Your task to perform on an android device: Open Amazon Image 0: 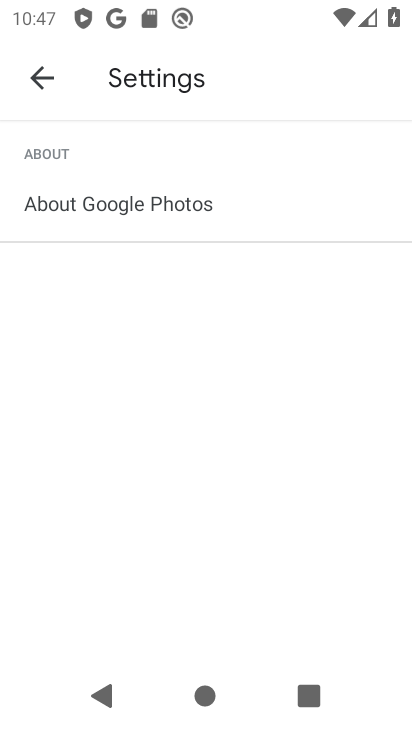
Step 0: press home button
Your task to perform on an android device: Open Amazon Image 1: 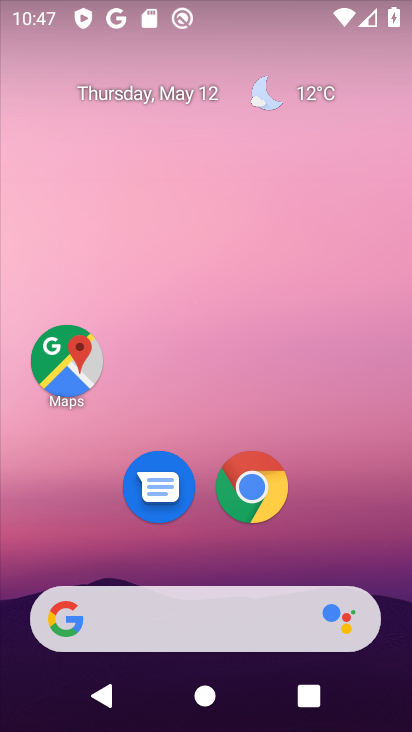
Step 1: click (251, 482)
Your task to perform on an android device: Open Amazon Image 2: 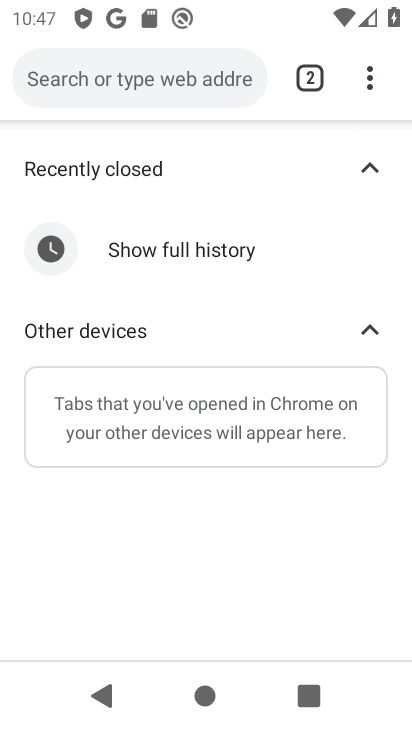
Step 2: click (129, 80)
Your task to perform on an android device: Open Amazon Image 3: 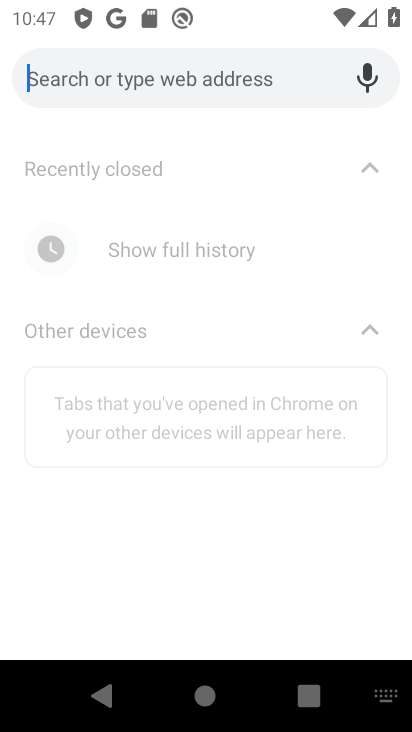
Step 3: type "amazon"
Your task to perform on an android device: Open Amazon Image 4: 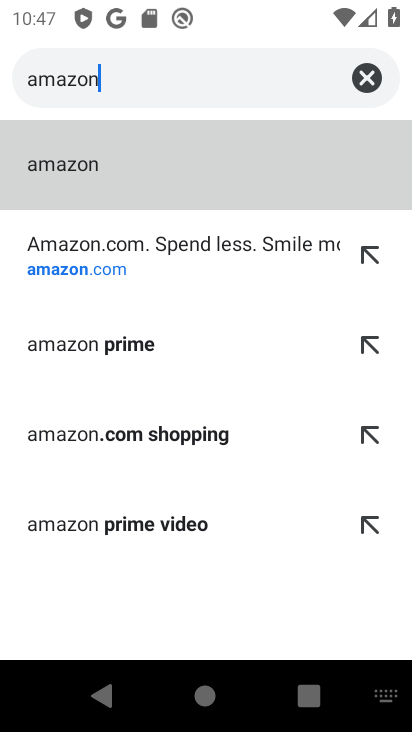
Step 4: click (65, 172)
Your task to perform on an android device: Open Amazon Image 5: 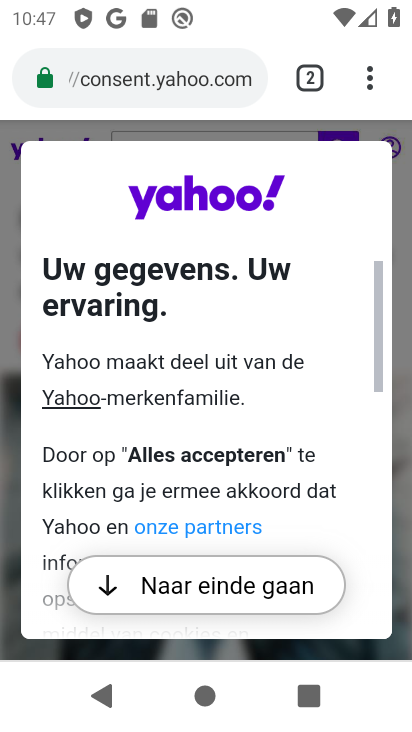
Step 5: click (139, 82)
Your task to perform on an android device: Open Amazon Image 6: 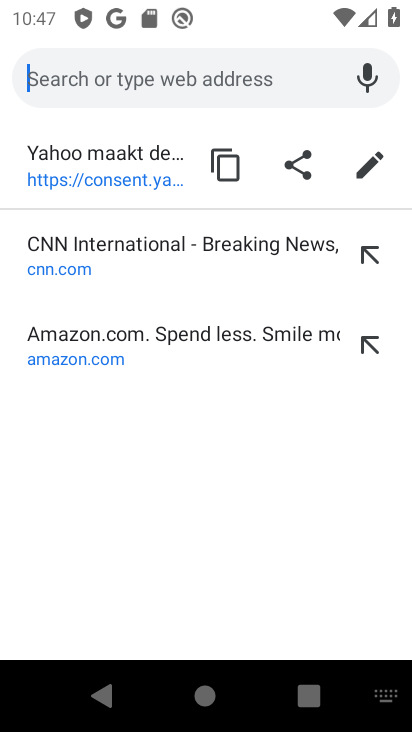
Step 6: click (88, 348)
Your task to perform on an android device: Open Amazon Image 7: 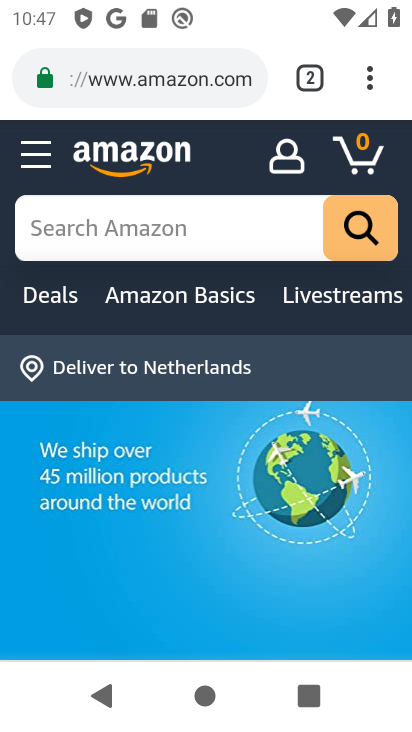
Step 7: task complete